Your task to perform on an android device: Set the phone to "Do not disturb". Image 0: 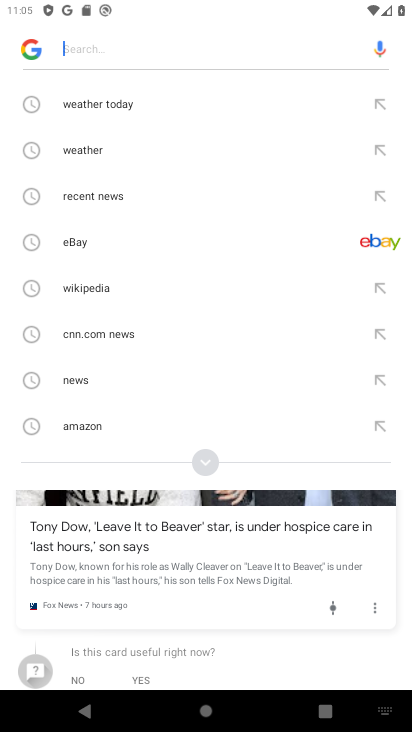
Step 0: press home button
Your task to perform on an android device: Set the phone to "Do not disturb". Image 1: 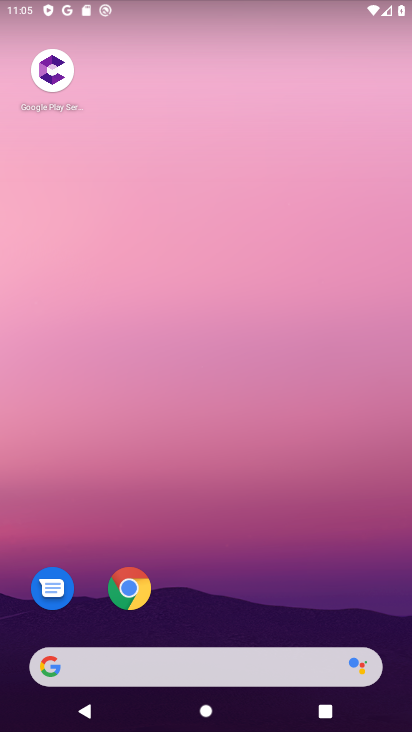
Step 1: drag from (265, 608) to (178, 169)
Your task to perform on an android device: Set the phone to "Do not disturb". Image 2: 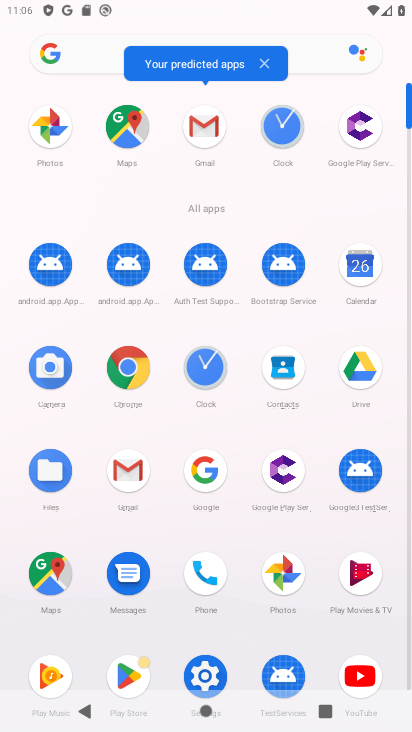
Step 2: click (205, 654)
Your task to perform on an android device: Set the phone to "Do not disturb". Image 3: 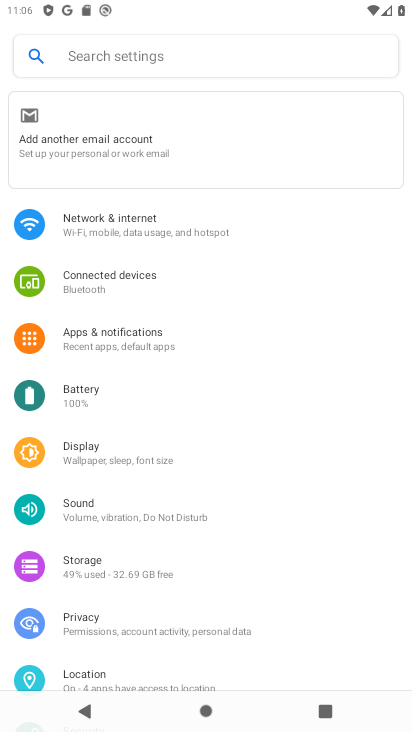
Step 3: click (124, 519)
Your task to perform on an android device: Set the phone to "Do not disturb". Image 4: 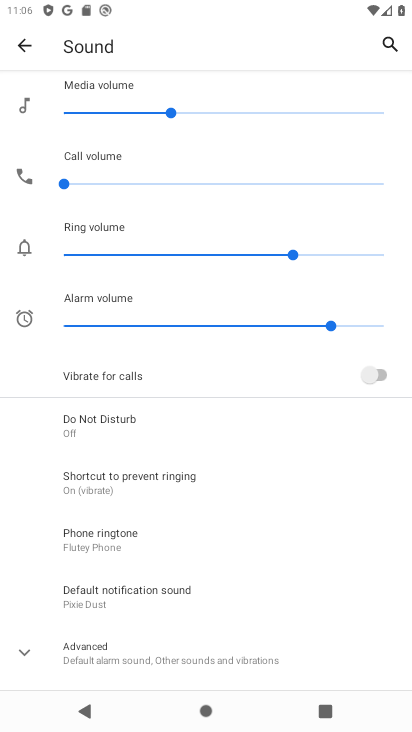
Step 4: click (123, 418)
Your task to perform on an android device: Set the phone to "Do not disturb". Image 5: 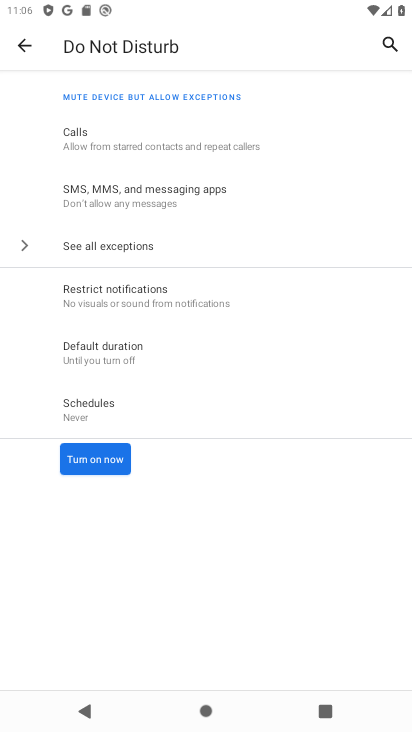
Step 5: click (106, 473)
Your task to perform on an android device: Set the phone to "Do not disturb". Image 6: 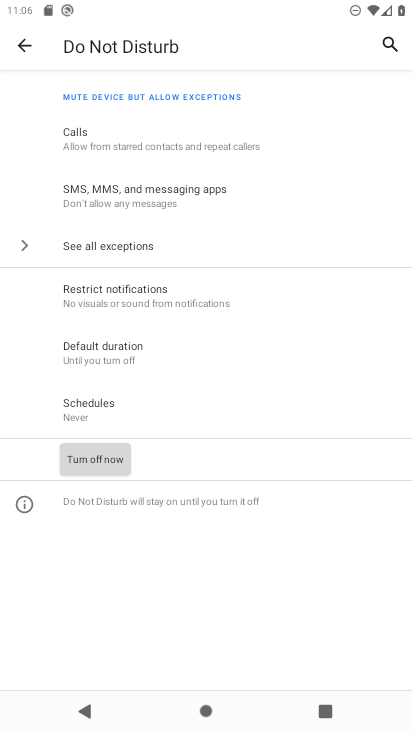
Step 6: task complete